Your task to perform on an android device: change the clock display to show seconds Image 0: 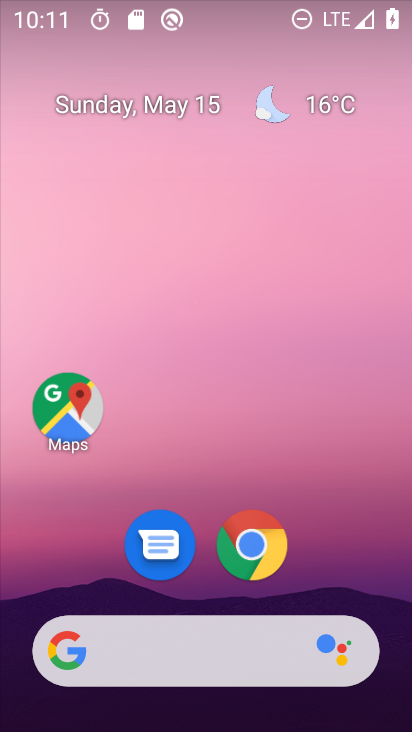
Step 0: drag from (329, 463) to (258, 143)
Your task to perform on an android device: change the clock display to show seconds Image 1: 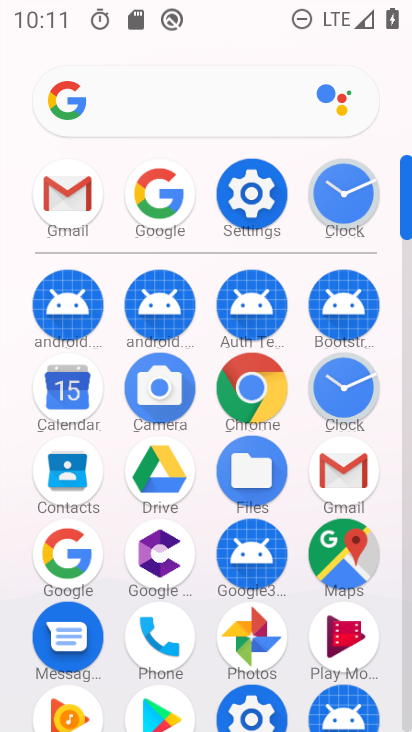
Step 1: click (343, 196)
Your task to perform on an android device: change the clock display to show seconds Image 2: 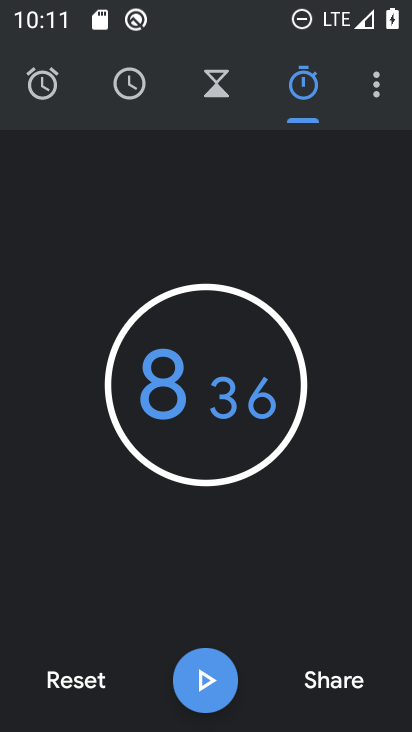
Step 2: click (376, 89)
Your task to perform on an android device: change the clock display to show seconds Image 3: 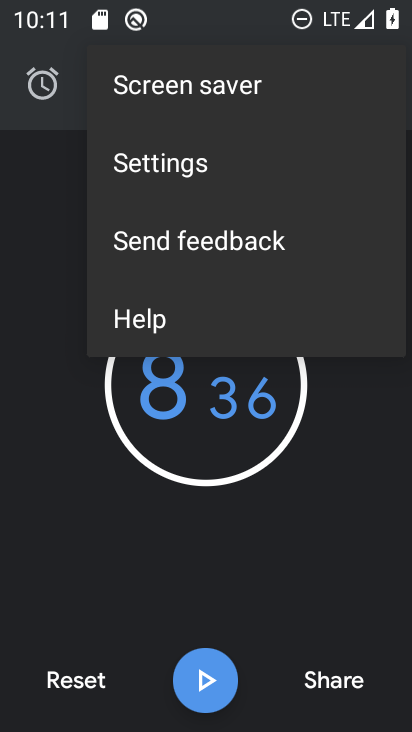
Step 3: click (157, 168)
Your task to perform on an android device: change the clock display to show seconds Image 4: 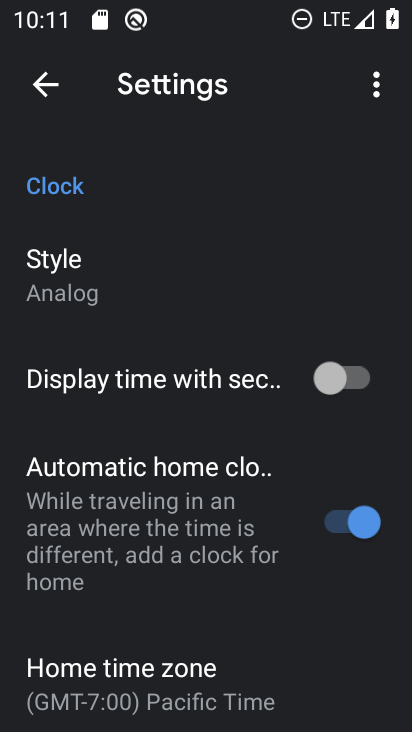
Step 4: click (332, 371)
Your task to perform on an android device: change the clock display to show seconds Image 5: 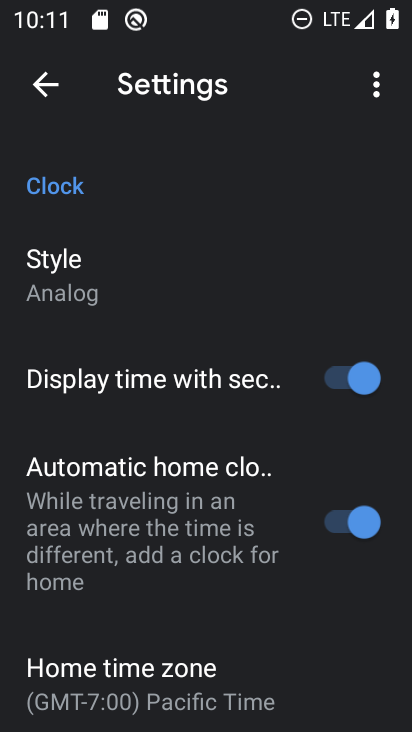
Step 5: task complete